Your task to perform on an android device: empty trash in google photos Image 0: 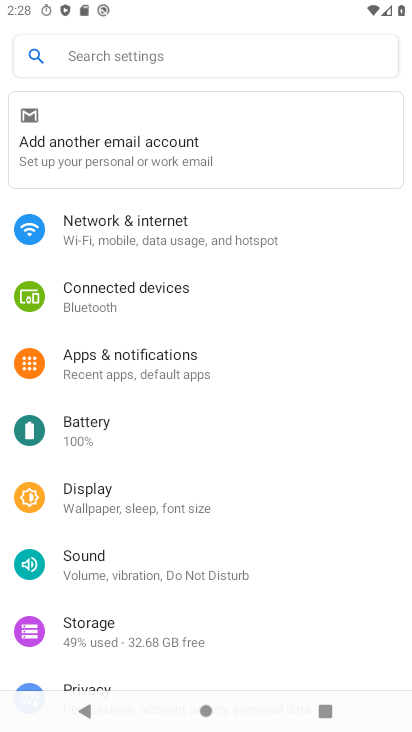
Step 0: press home button
Your task to perform on an android device: empty trash in google photos Image 1: 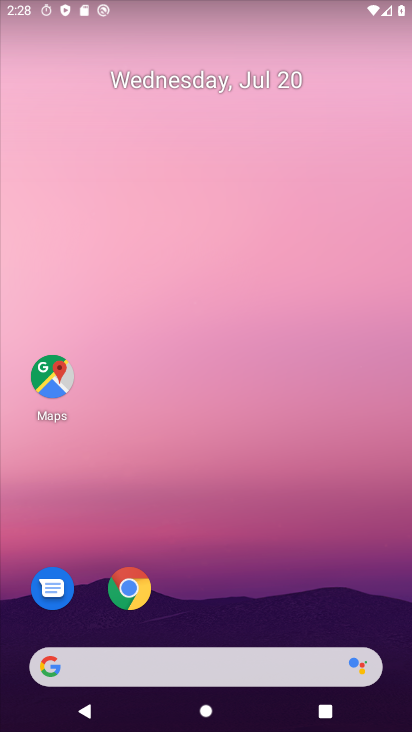
Step 1: drag from (238, 627) to (327, 15)
Your task to perform on an android device: empty trash in google photos Image 2: 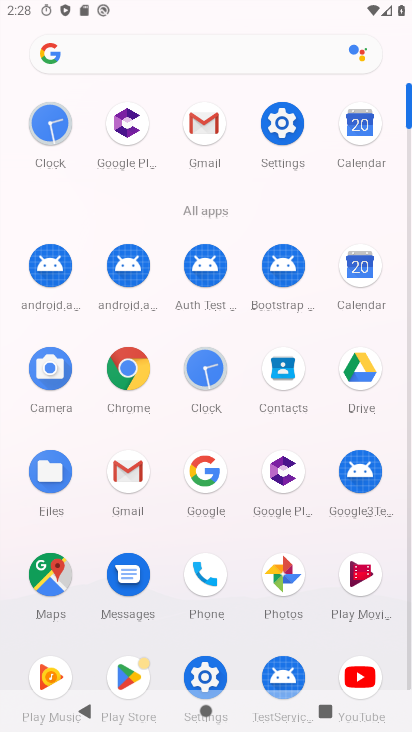
Step 2: click (278, 576)
Your task to perform on an android device: empty trash in google photos Image 3: 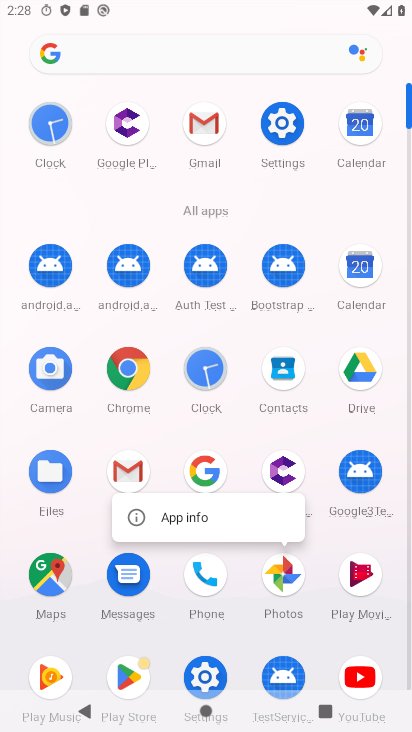
Step 3: click (164, 529)
Your task to perform on an android device: empty trash in google photos Image 4: 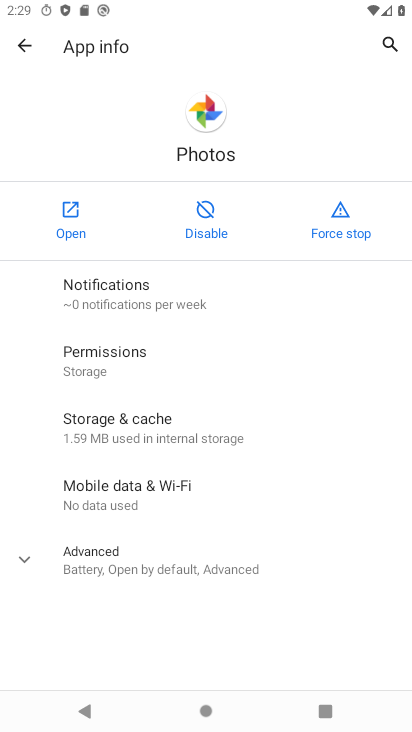
Step 4: click (81, 223)
Your task to perform on an android device: empty trash in google photos Image 5: 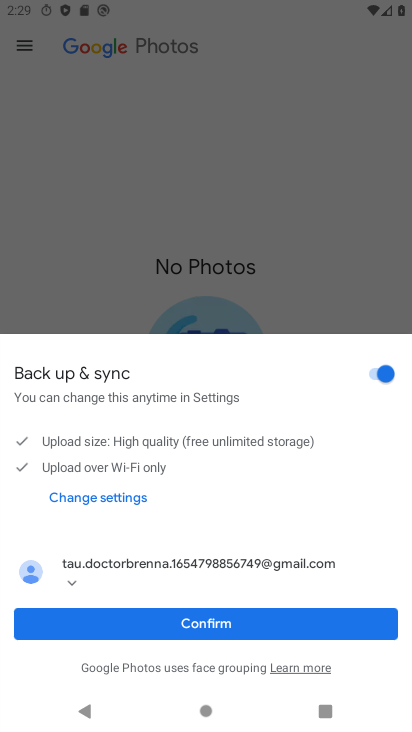
Step 5: click (203, 624)
Your task to perform on an android device: empty trash in google photos Image 6: 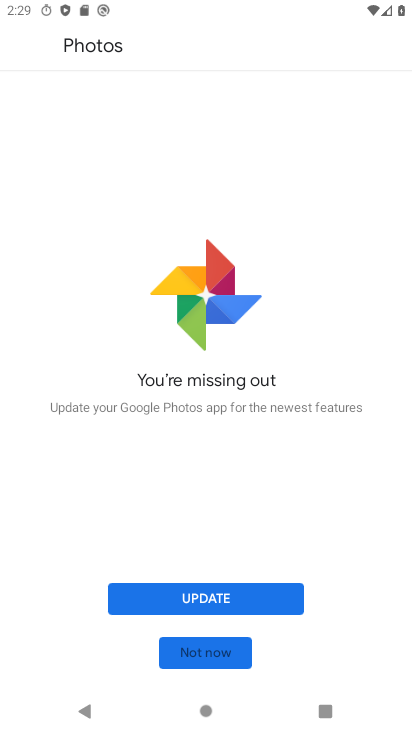
Step 6: click (203, 664)
Your task to perform on an android device: empty trash in google photos Image 7: 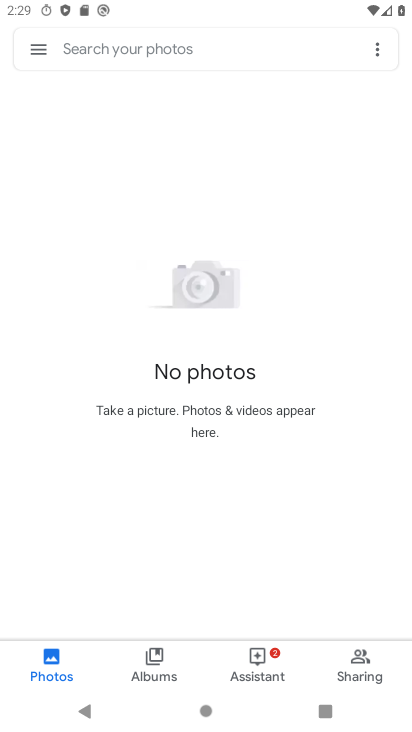
Step 7: click (35, 56)
Your task to perform on an android device: empty trash in google photos Image 8: 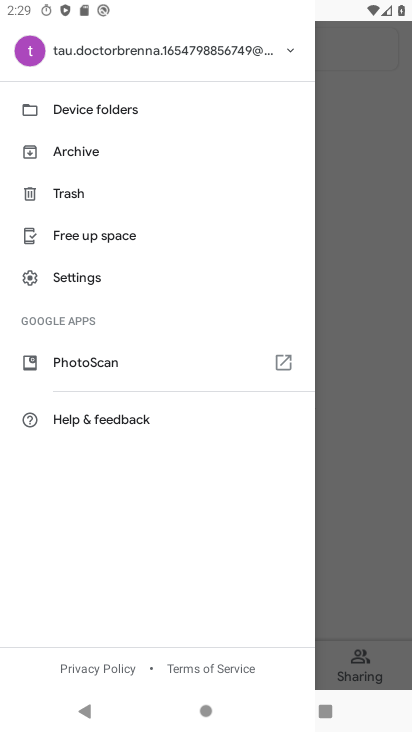
Step 8: click (78, 194)
Your task to perform on an android device: empty trash in google photos Image 9: 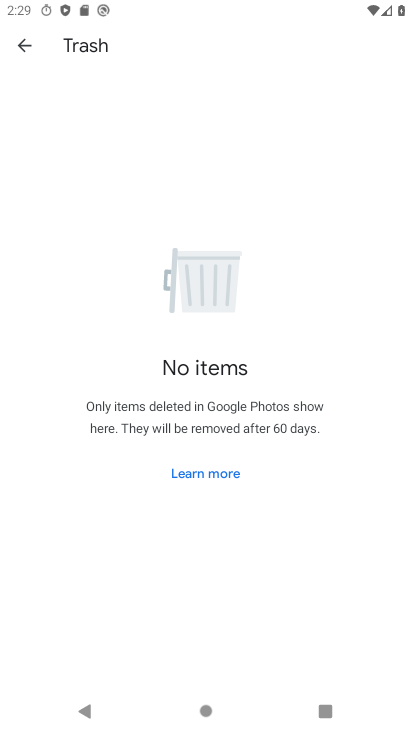
Step 9: task complete